Your task to perform on an android device: find which apps use the phone's location Image 0: 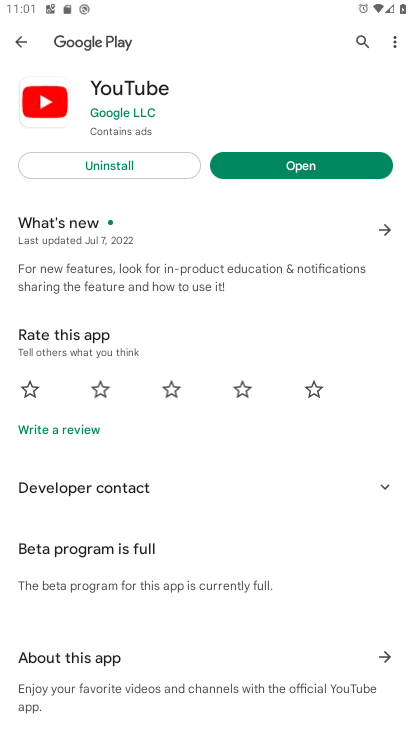
Step 0: press back button
Your task to perform on an android device: find which apps use the phone's location Image 1: 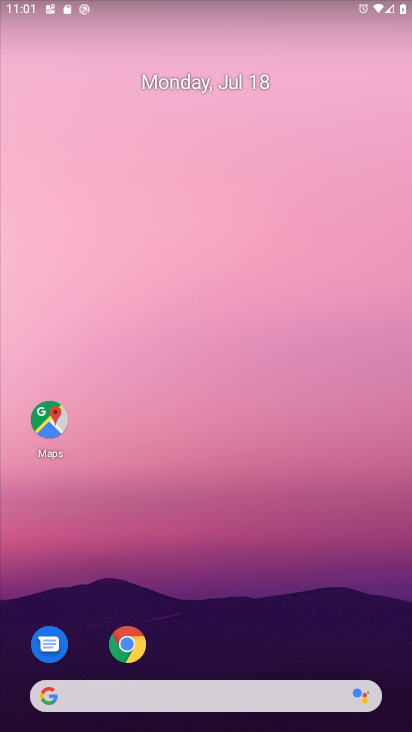
Step 1: click (54, 439)
Your task to perform on an android device: find which apps use the phone's location Image 2: 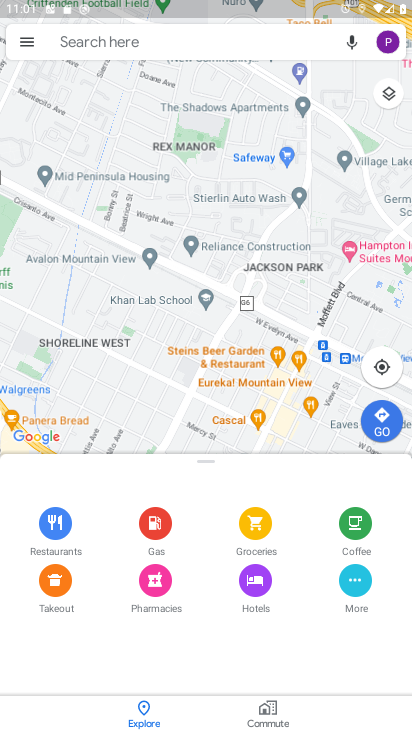
Step 2: task complete